Your task to perform on an android device: turn pop-ups off in chrome Image 0: 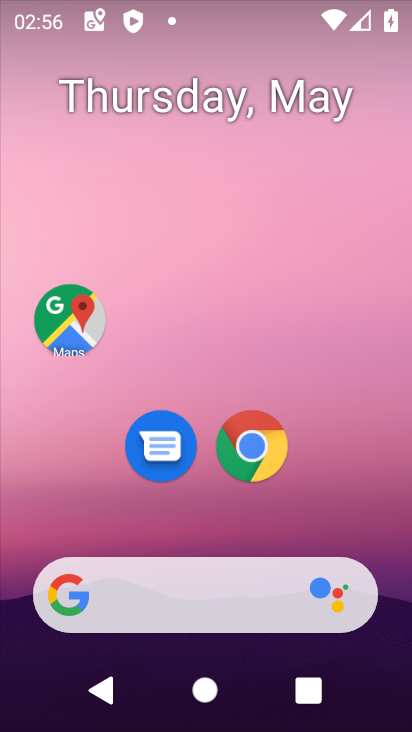
Step 0: click (259, 454)
Your task to perform on an android device: turn pop-ups off in chrome Image 1: 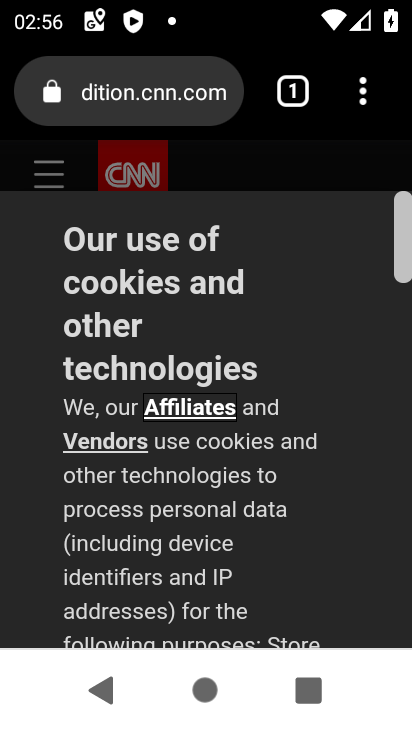
Step 1: click (360, 97)
Your task to perform on an android device: turn pop-ups off in chrome Image 2: 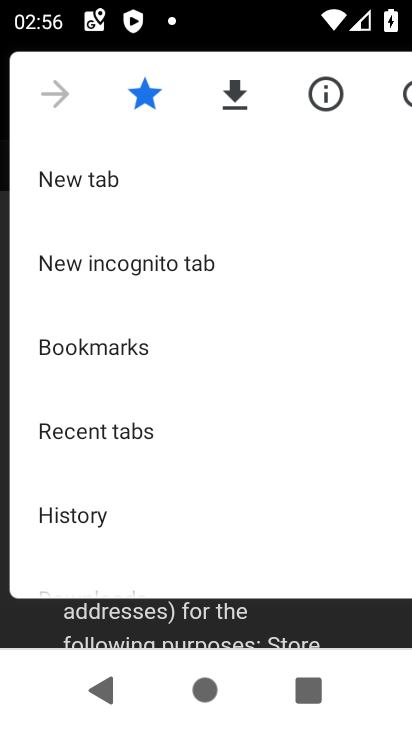
Step 2: drag from (188, 508) to (178, 129)
Your task to perform on an android device: turn pop-ups off in chrome Image 3: 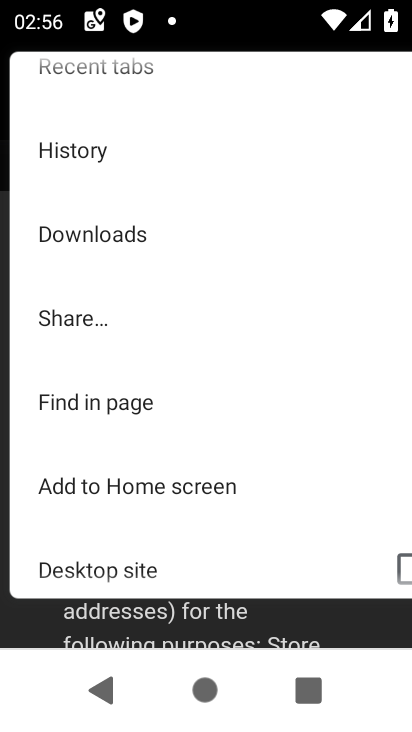
Step 3: drag from (145, 460) to (157, 148)
Your task to perform on an android device: turn pop-ups off in chrome Image 4: 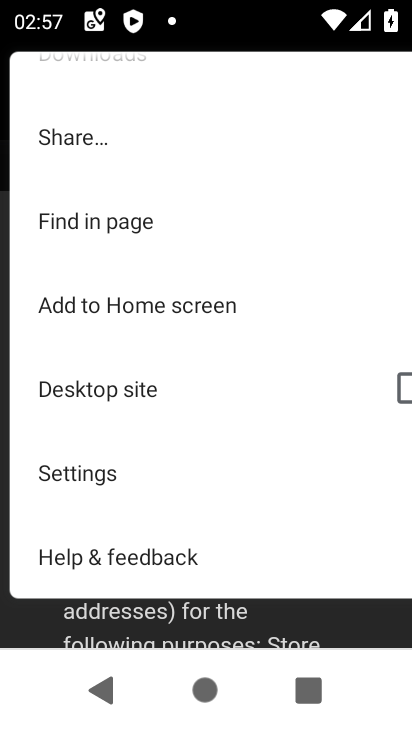
Step 4: click (82, 480)
Your task to perform on an android device: turn pop-ups off in chrome Image 5: 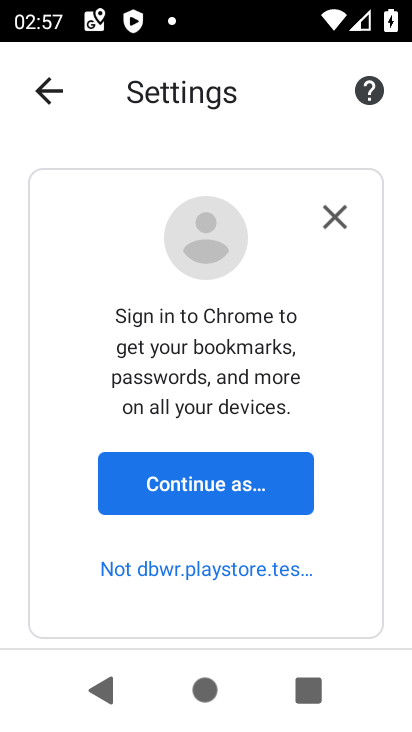
Step 5: drag from (261, 562) to (241, 124)
Your task to perform on an android device: turn pop-ups off in chrome Image 6: 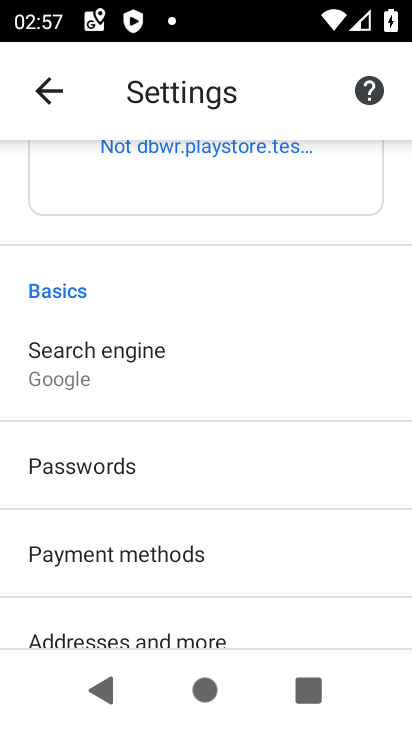
Step 6: drag from (159, 519) to (169, 132)
Your task to perform on an android device: turn pop-ups off in chrome Image 7: 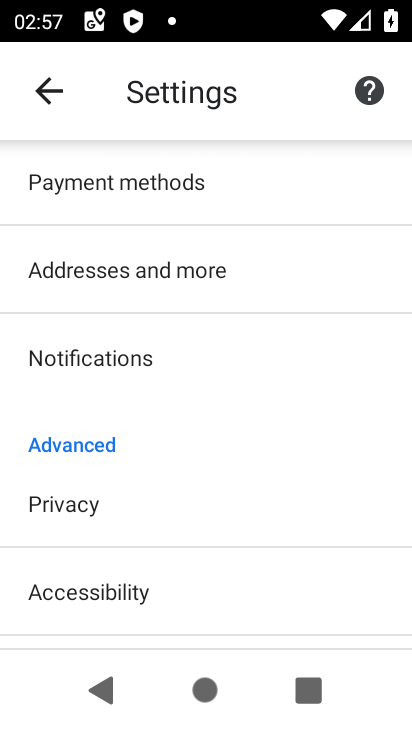
Step 7: drag from (132, 486) to (158, 190)
Your task to perform on an android device: turn pop-ups off in chrome Image 8: 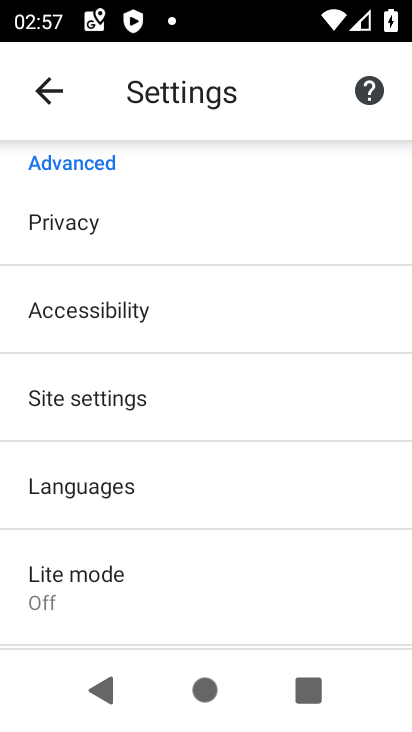
Step 8: click (81, 401)
Your task to perform on an android device: turn pop-ups off in chrome Image 9: 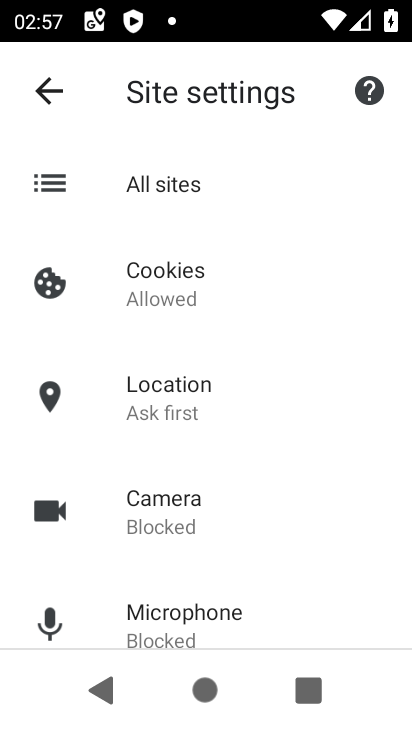
Step 9: drag from (233, 582) to (261, 333)
Your task to perform on an android device: turn pop-ups off in chrome Image 10: 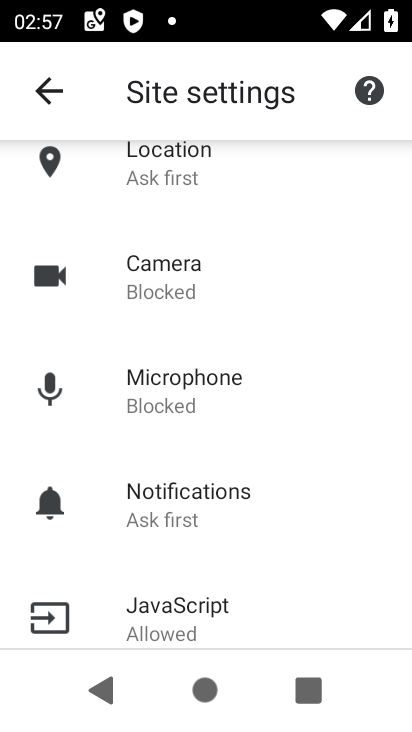
Step 10: drag from (241, 490) to (240, 230)
Your task to perform on an android device: turn pop-ups off in chrome Image 11: 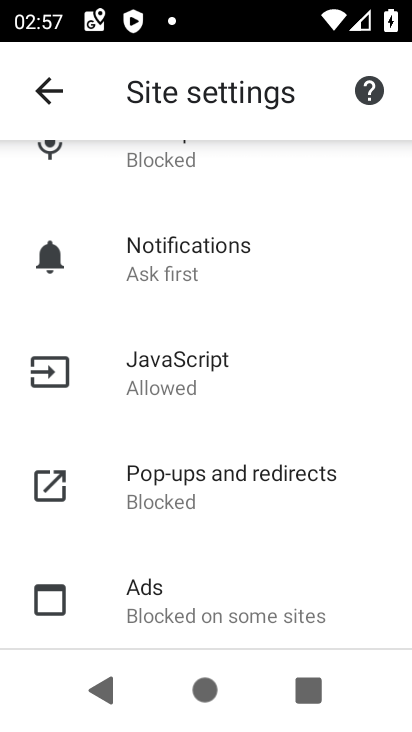
Step 11: click (215, 476)
Your task to perform on an android device: turn pop-ups off in chrome Image 12: 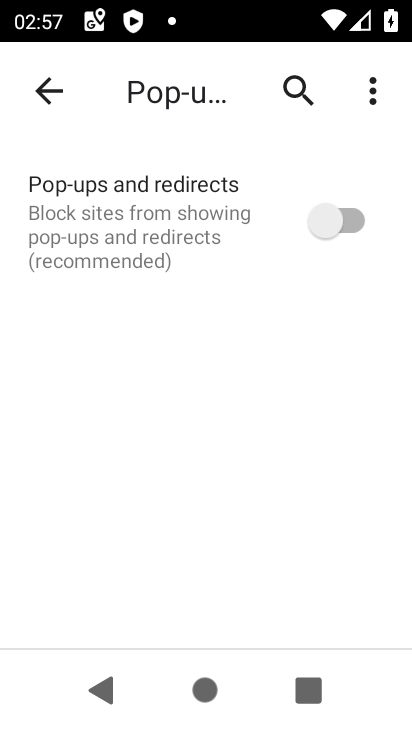
Step 12: task complete